Your task to perform on an android device: Open sound settings Image 0: 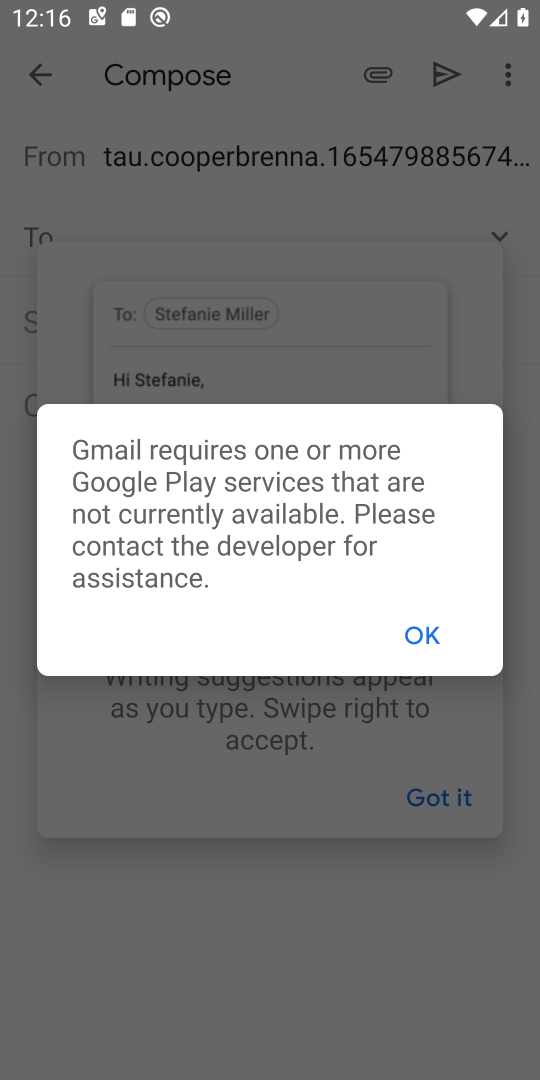
Step 0: press home button
Your task to perform on an android device: Open sound settings Image 1: 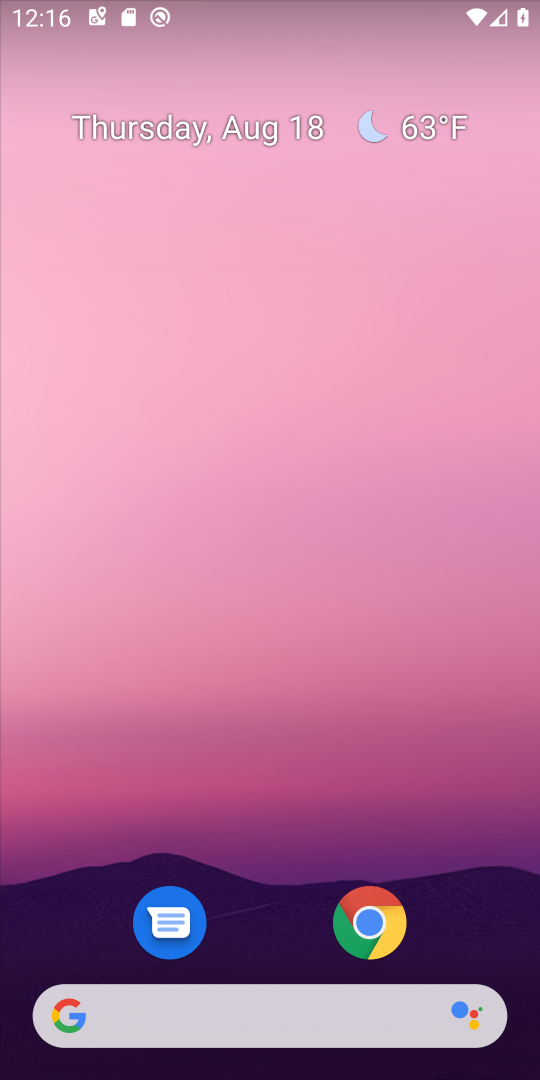
Step 1: drag from (272, 895) to (213, 195)
Your task to perform on an android device: Open sound settings Image 2: 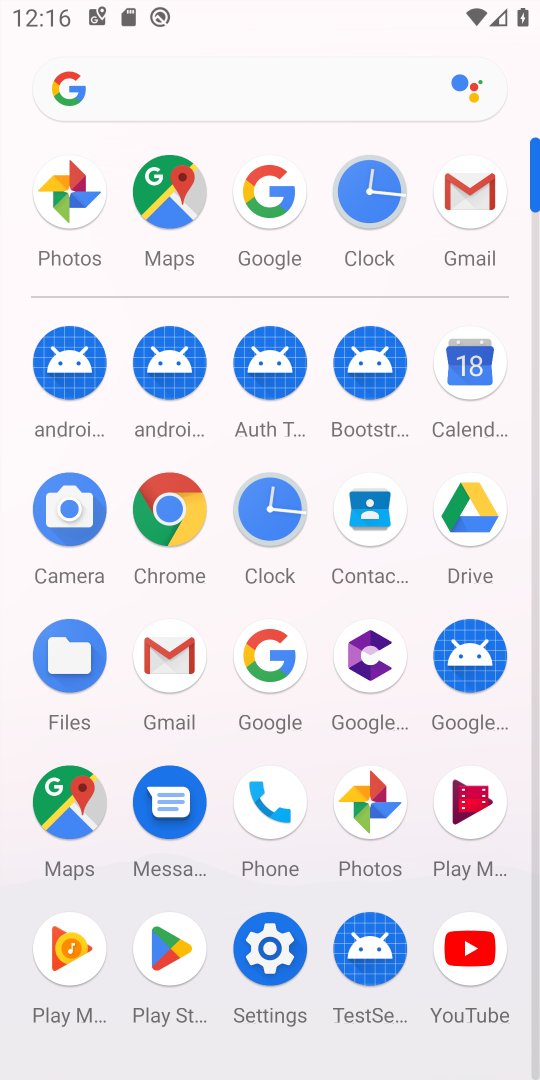
Step 2: click (268, 943)
Your task to perform on an android device: Open sound settings Image 3: 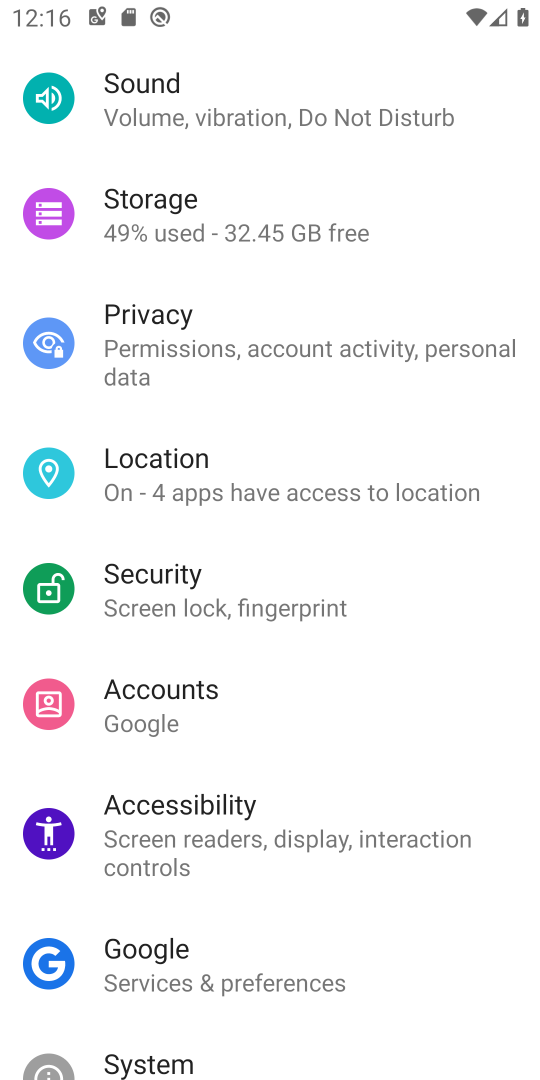
Step 3: click (155, 83)
Your task to perform on an android device: Open sound settings Image 4: 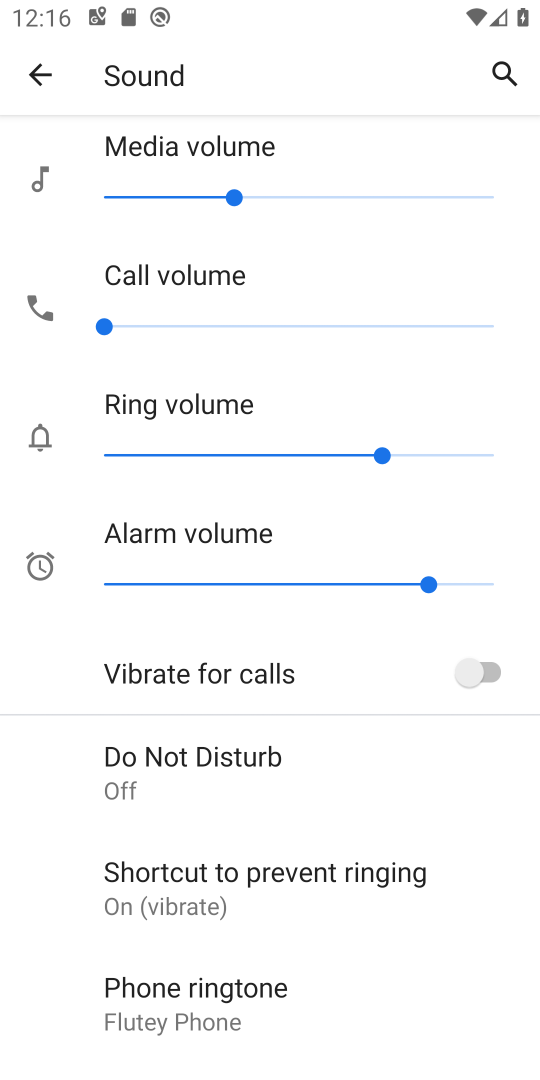
Step 4: task complete